Your task to perform on an android device: Open sound settings Image 0: 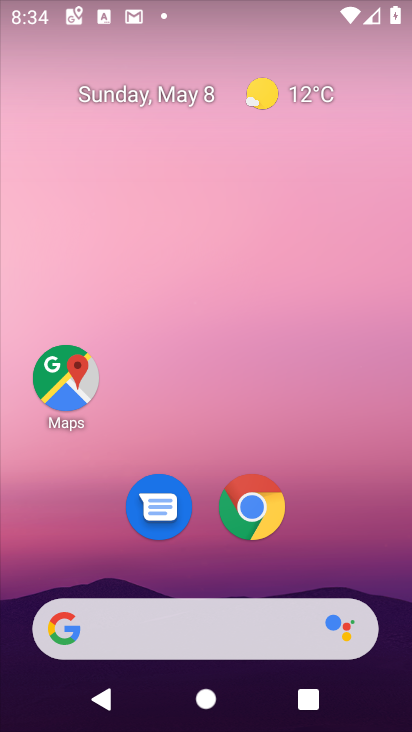
Step 0: drag from (267, 603) to (207, 130)
Your task to perform on an android device: Open sound settings Image 1: 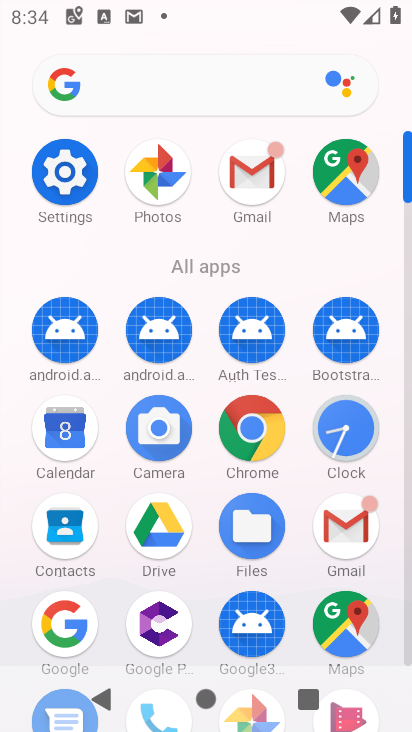
Step 1: click (78, 168)
Your task to perform on an android device: Open sound settings Image 2: 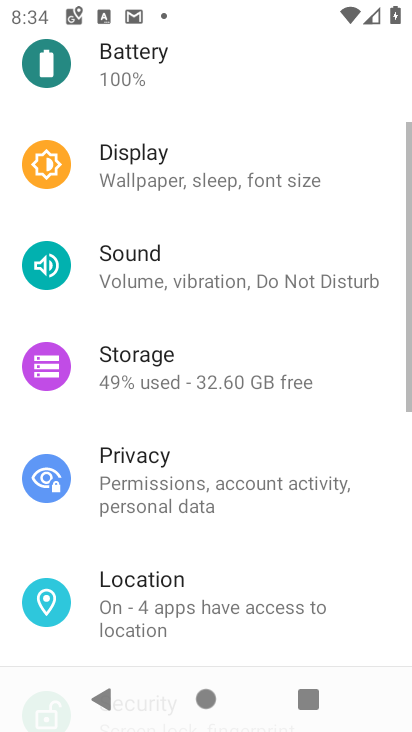
Step 2: click (148, 287)
Your task to perform on an android device: Open sound settings Image 3: 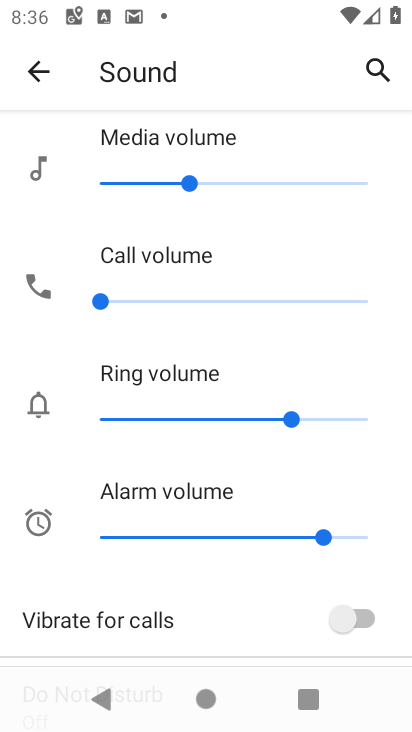
Step 3: task complete